Your task to perform on an android device: Open calendar and show me the fourth week of next month Image 0: 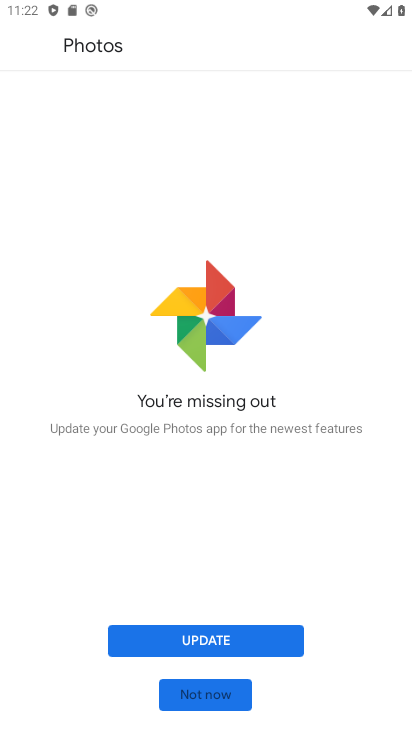
Step 0: press home button
Your task to perform on an android device: Open calendar and show me the fourth week of next month Image 1: 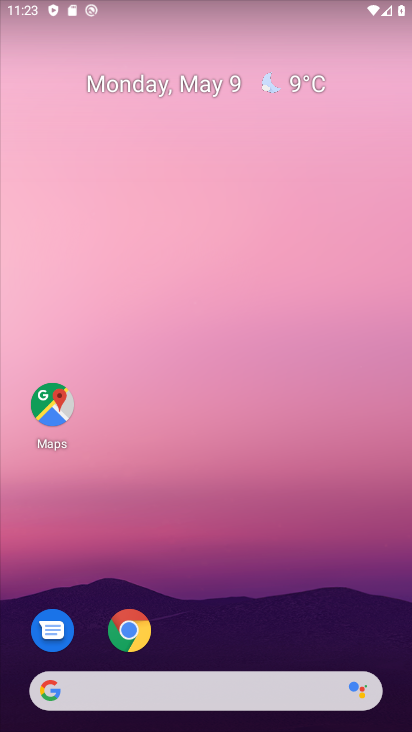
Step 1: drag from (222, 606) to (105, 121)
Your task to perform on an android device: Open calendar and show me the fourth week of next month Image 2: 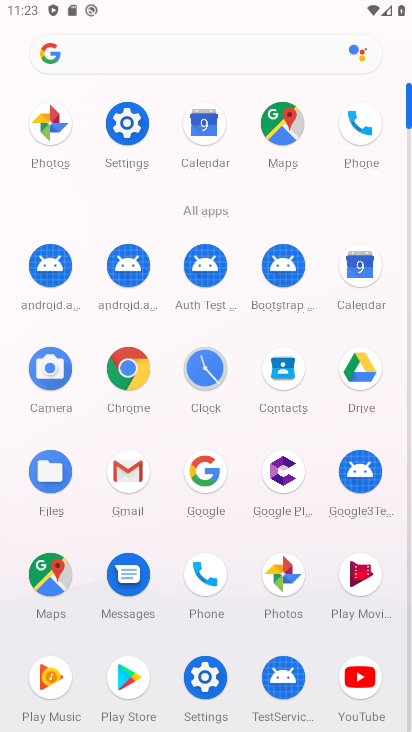
Step 2: click (353, 266)
Your task to perform on an android device: Open calendar and show me the fourth week of next month Image 3: 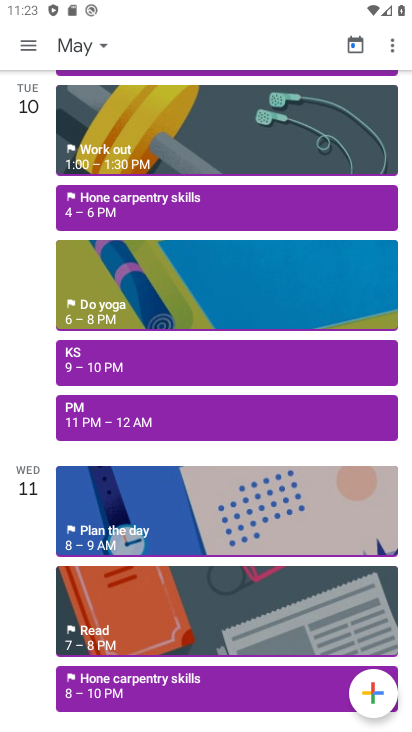
Step 3: click (20, 36)
Your task to perform on an android device: Open calendar and show me the fourth week of next month Image 4: 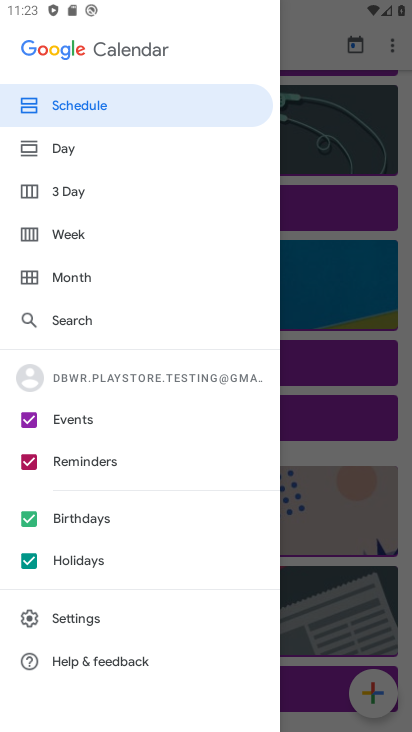
Step 4: click (72, 238)
Your task to perform on an android device: Open calendar and show me the fourth week of next month Image 5: 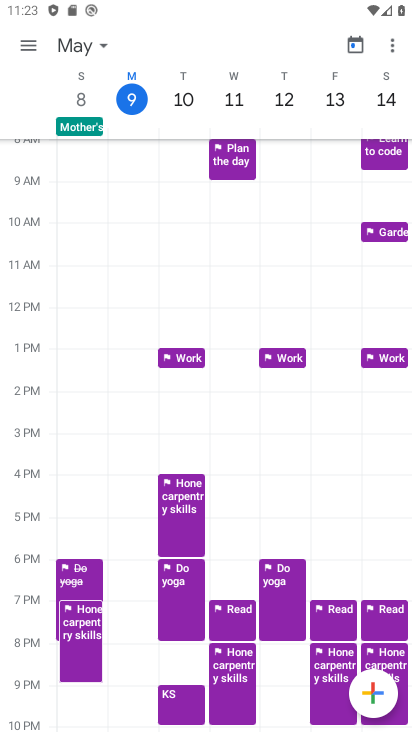
Step 5: click (101, 42)
Your task to perform on an android device: Open calendar and show me the fourth week of next month Image 6: 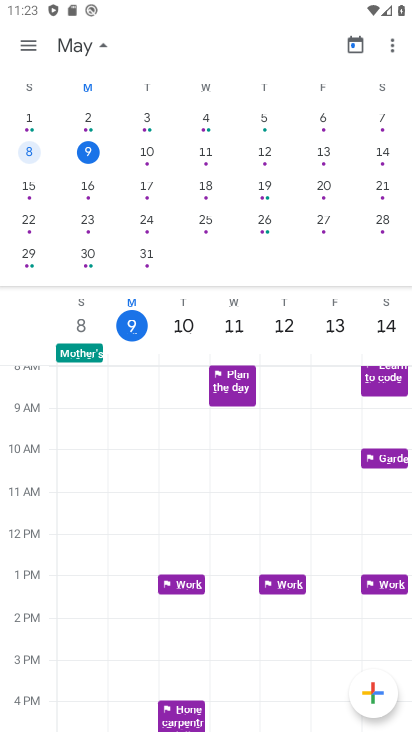
Step 6: drag from (350, 212) to (13, 212)
Your task to perform on an android device: Open calendar and show me the fourth week of next month Image 7: 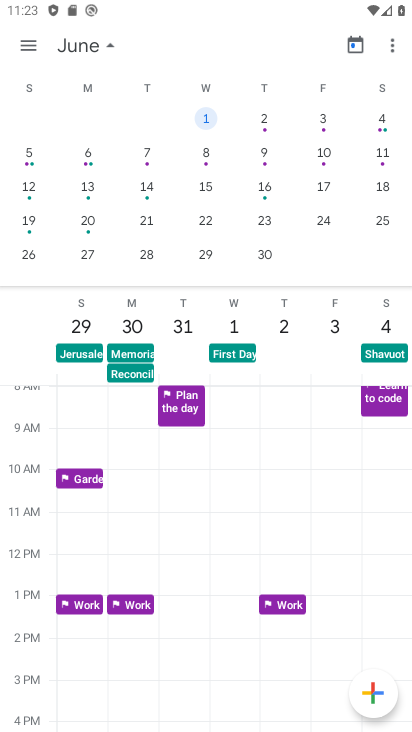
Step 7: click (206, 218)
Your task to perform on an android device: Open calendar and show me the fourth week of next month Image 8: 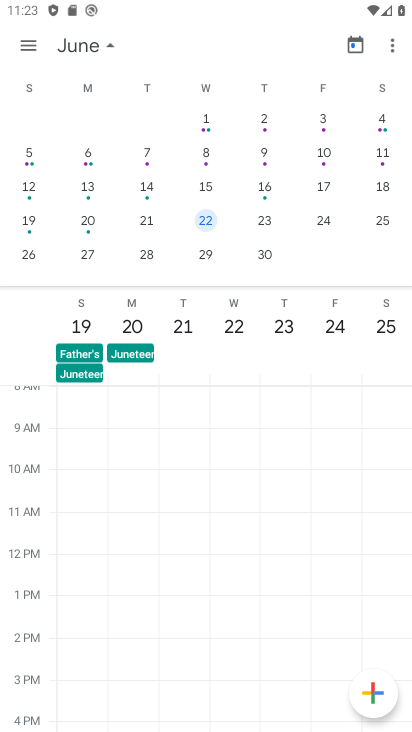
Step 8: task complete